Your task to perform on an android device: turn on priority inbox in the gmail app Image 0: 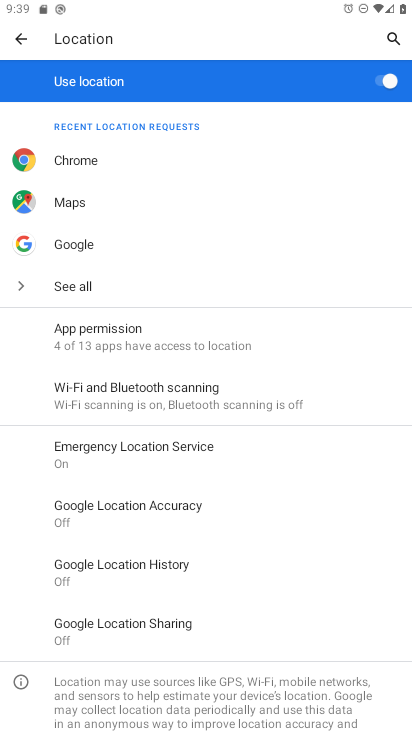
Step 0: press home button
Your task to perform on an android device: turn on priority inbox in the gmail app Image 1: 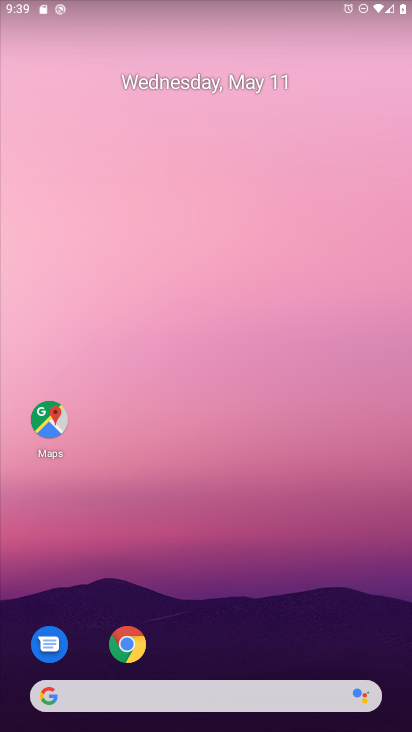
Step 1: drag from (197, 592) to (97, 149)
Your task to perform on an android device: turn on priority inbox in the gmail app Image 2: 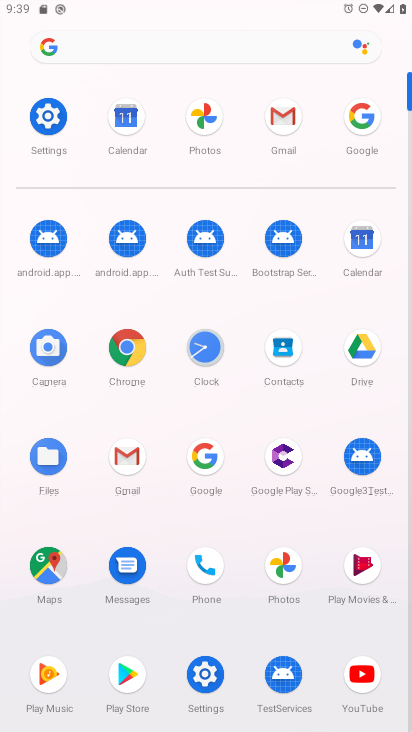
Step 2: click (125, 459)
Your task to perform on an android device: turn on priority inbox in the gmail app Image 3: 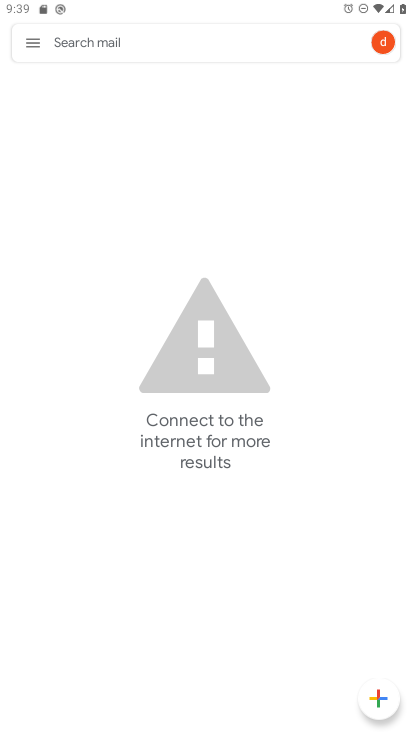
Step 3: click (28, 44)
Your task to perform on an android device: turn on priority inbox in the gmail app Image 4: 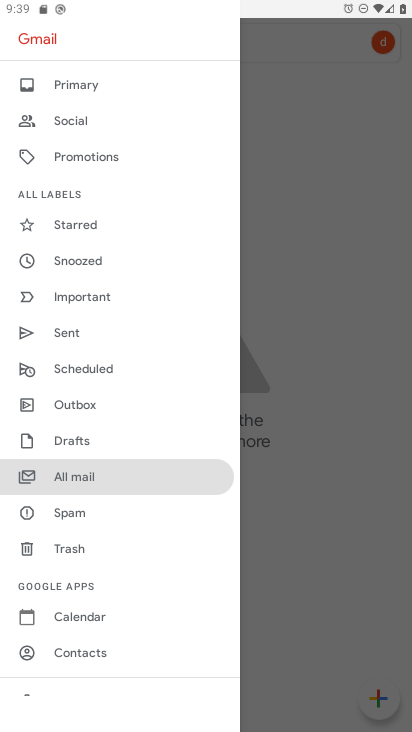
Step 4: drag from (131, 592) to (98, 370)
Your task to perform on an android device: turn on priority inbox in the gmail app Image 5: 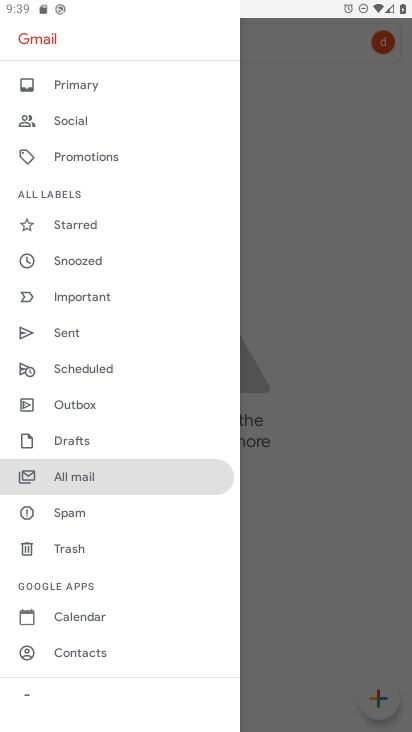
Step 5: drag from (118, 562) to (118, 300)
Your task to perform on an android device: turn on priority inbox in the gmail app Image 6: 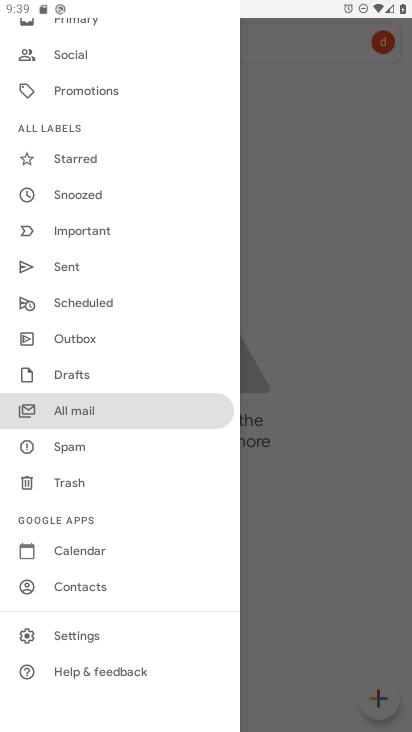
Step 6: click (70, 639)
Your task to perform on an android device: turn on priority inbox in the gmail app Image 7: 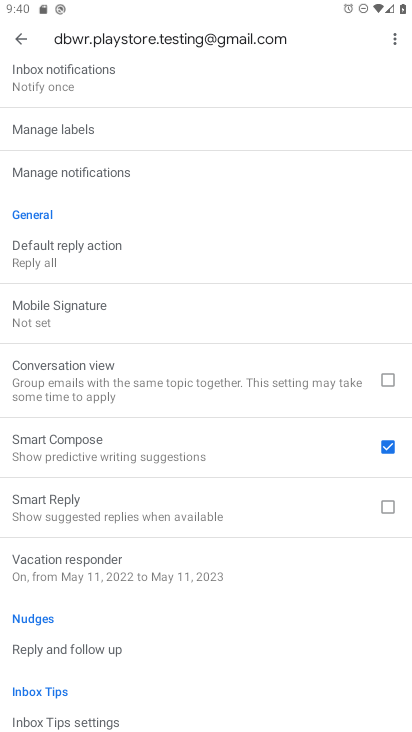
Step 7: drag from (218, 153) to (274, 447)
Your task to perform on an android device: turn on priority inbox in the gmail app Image 8: 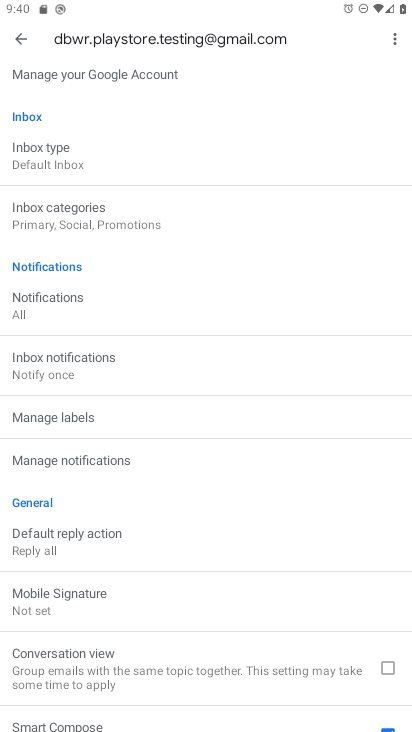
Step 8: click (39, 147)
Your task to perform on an android device: turn on priority inbox in the gmail app Image 9: 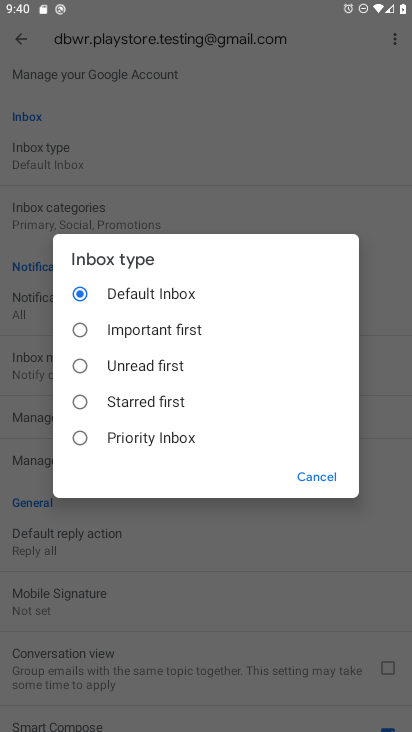
Step 9: click (77, 439)
Your task to perform on an android device: turn on priority inbox in the gmail app Image 10: 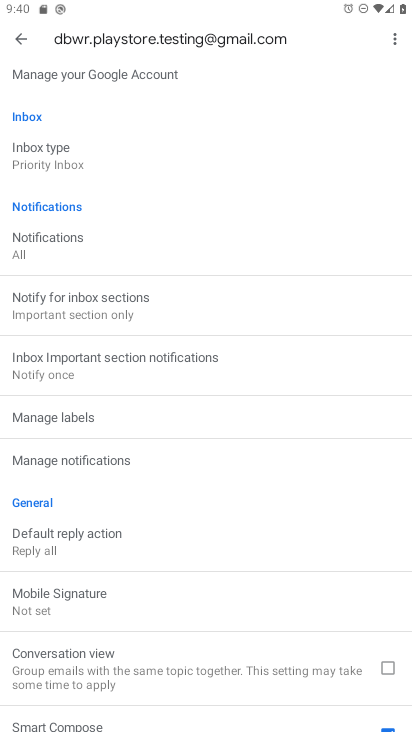
Step 10: task complete